Your task to perform on an android device: Is it going to rain this weekend? Image 0: 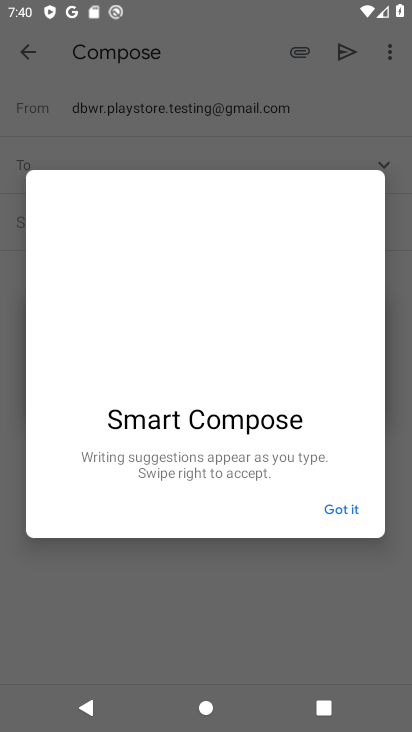
Step 0: press home button
Your task to perform on an android device: Is it going to rain this weekend? Image 1: 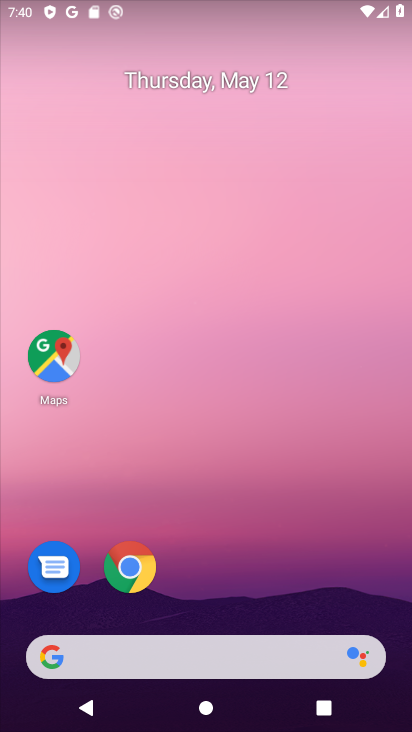
Step 1: drag from (268, 624) to (251, 219)
Your task to perform on an android device: Is it going to rain this weekend? Image 2: 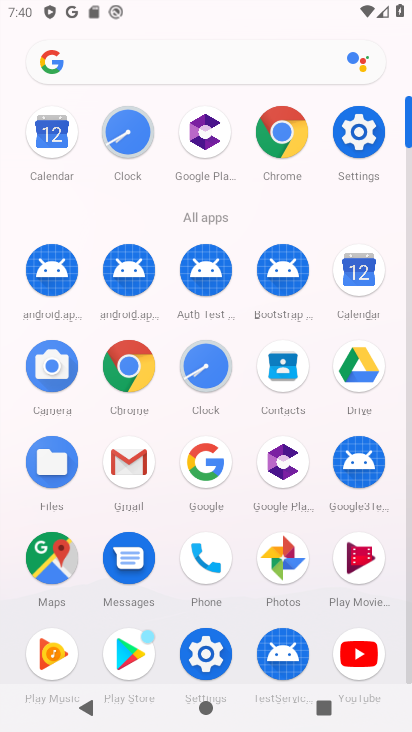
Step 2: click (207, 457)
Your task to perform on an android device: Is it going to rain this weekend? Image 3: 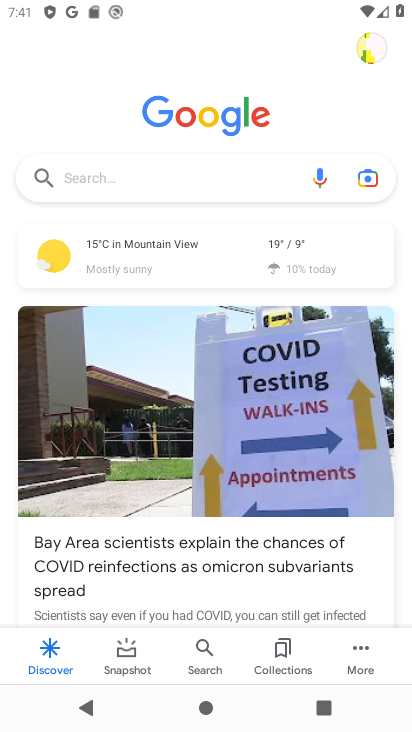
Step 3: click (136, 176)
Your task to perform on an android device: Is it going to rain this weekend? Image 4: 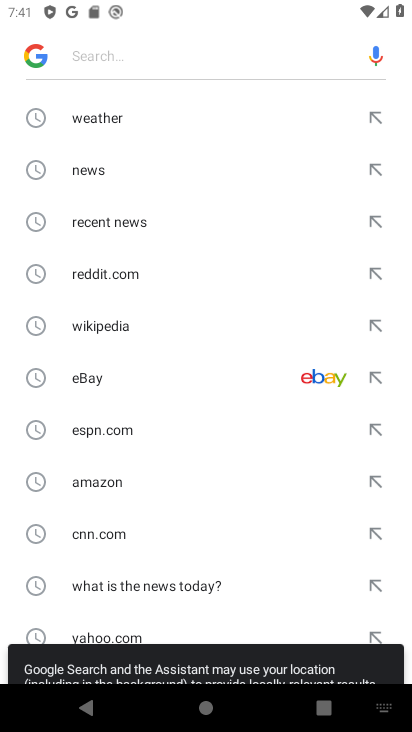
Step 4: click (160, 110)
Your task to perform on an android device: Is it going to rain this weekend? Image 5: 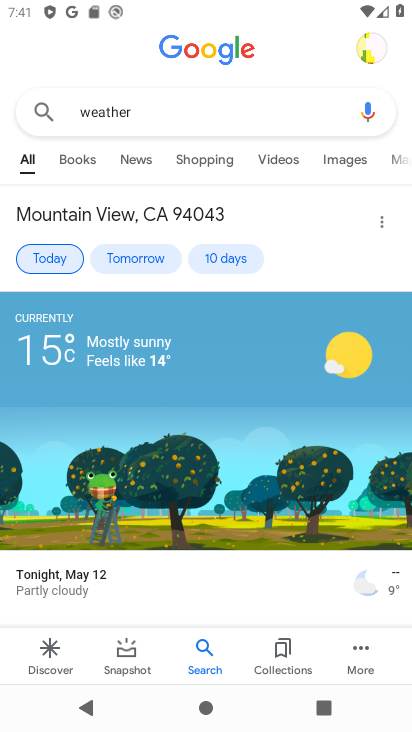
Step 5: click (219, 263)
Your task to perform on an android device: Is it going to rain this weekend? Image 6: 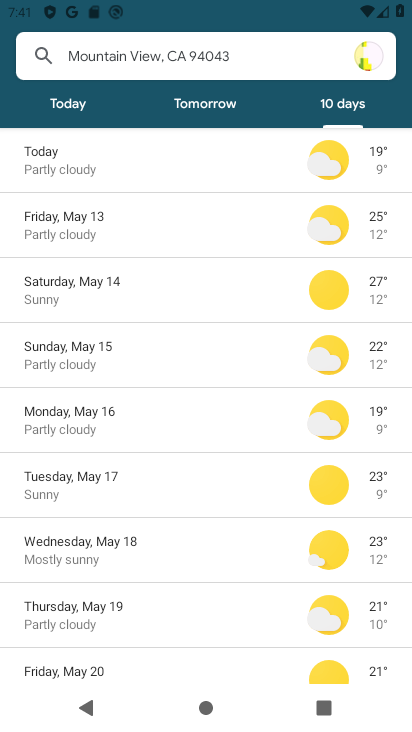
Step 6: task complete